Your task to perform on an android device: add a contact Image 0: 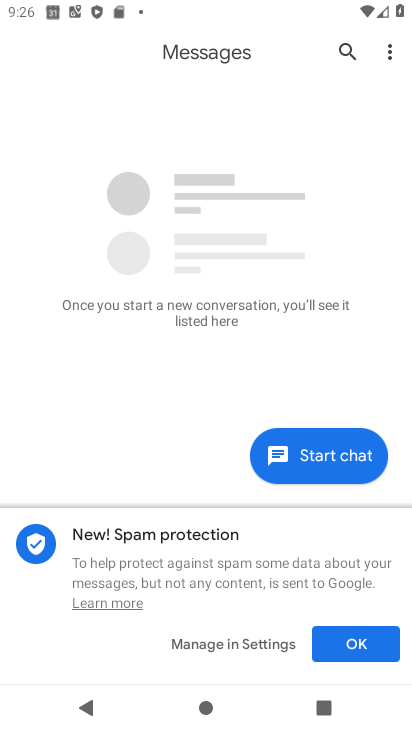
Step 0: press home button
Your task to perform on an android device: add a contact Image 1: 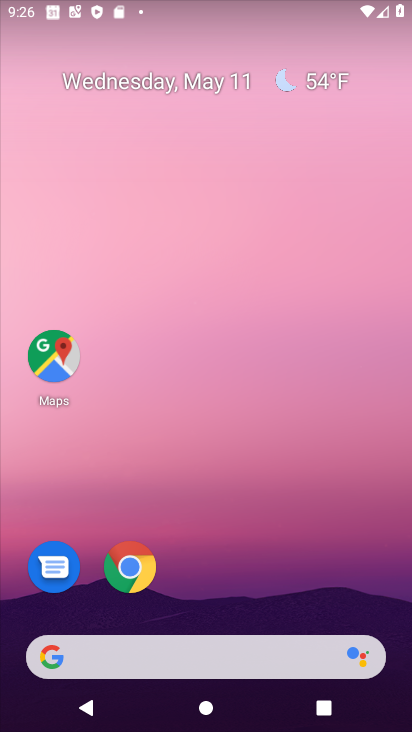
Step 1: drag from (209, 594) to (214, 7)
Your task to perform on an android device: add a contact Image 2: 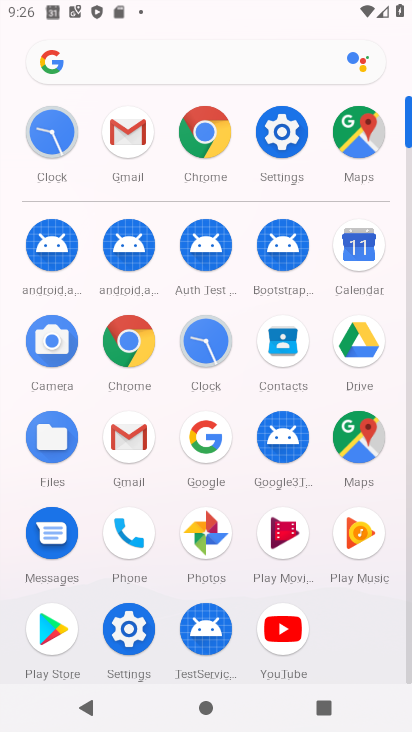
Step 2: click (294, 346)
Your task to perform on an android device: add a contact Image 3: 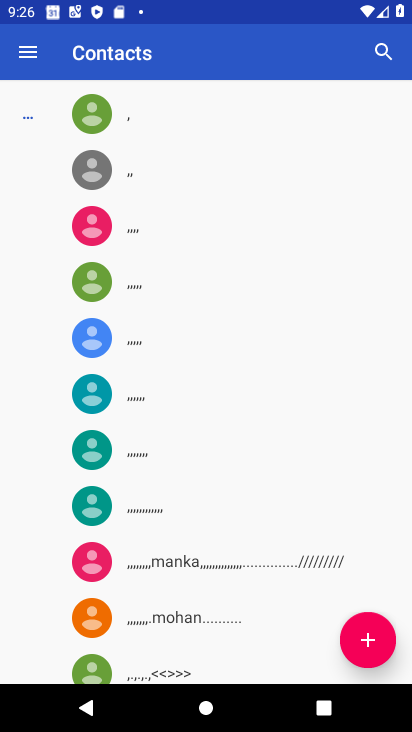
Step 3: click (361, 646)
Your task to perform on an android device: add a contact Image 4: 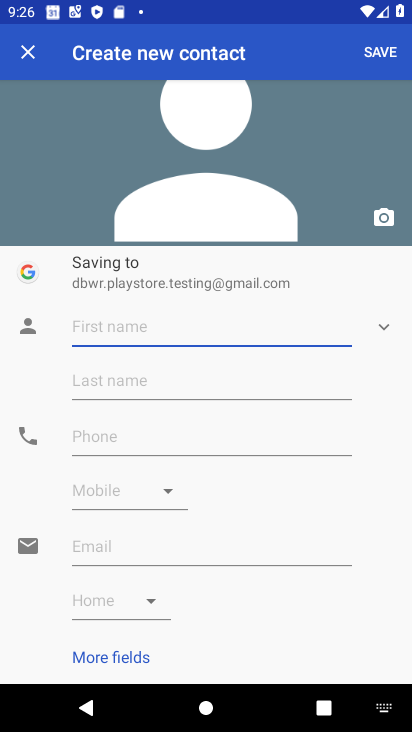
Step 4: type "corneila"
Your task to perform on an android device: add a contact Image 5: 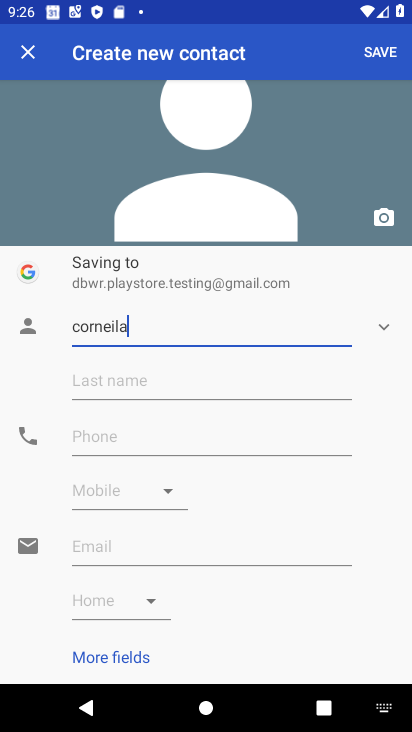
Step 5: click (387, 58)
Your task to perform on an android device: add a contact Image 6: 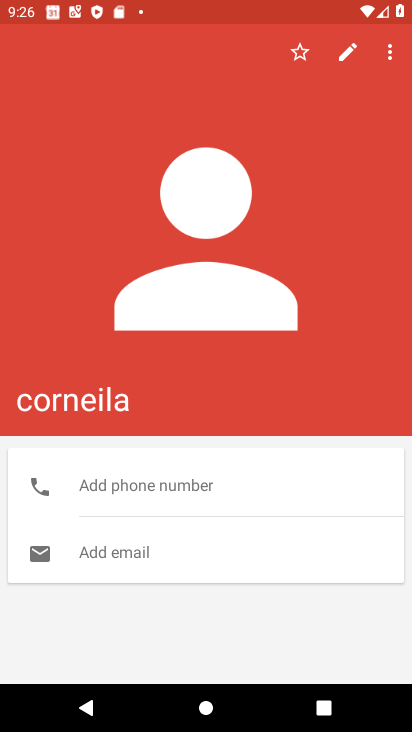
Step 6: task complete